Your task to perform on an android device: turn off data saver in the chrome app Image 0: 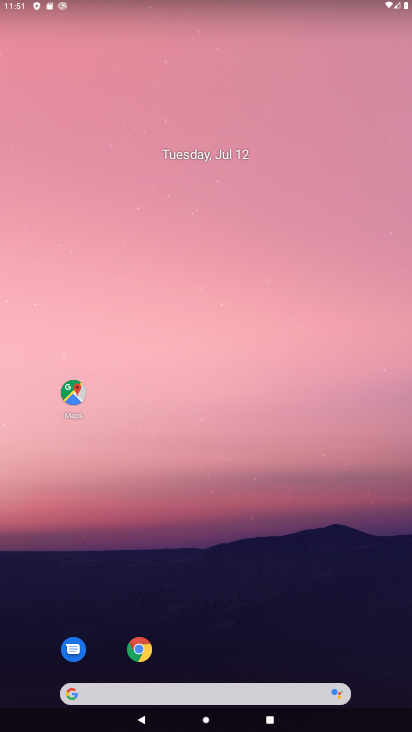
Step 0: drag from (267, 596) to (265, 251)
Your task to perform on an android device: turn off data saver in the chrome app Image 1: 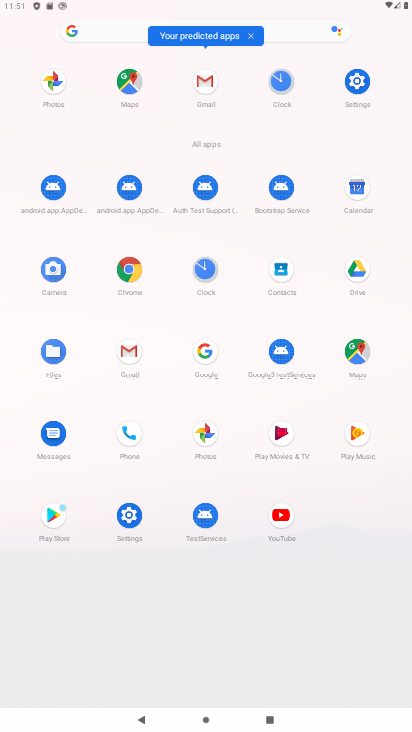
Step 1: click (132, 279)
Your task to perform on an android device: turn off data saver in the chrome app Image 2: 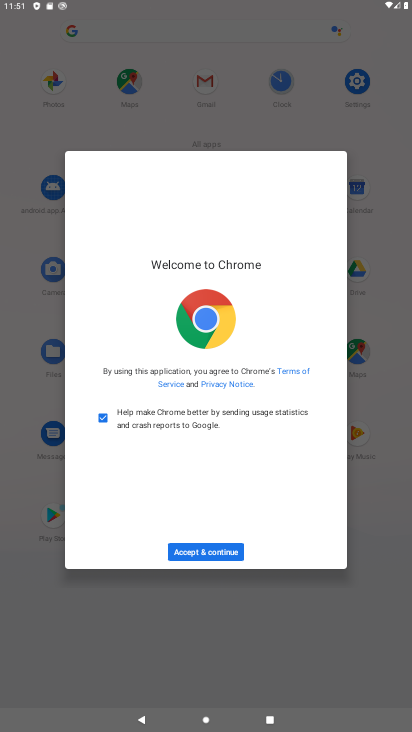
Step 2: click (224, 548)
Your task to perform on an android device: turn off data saver in the chrome app Image 3: 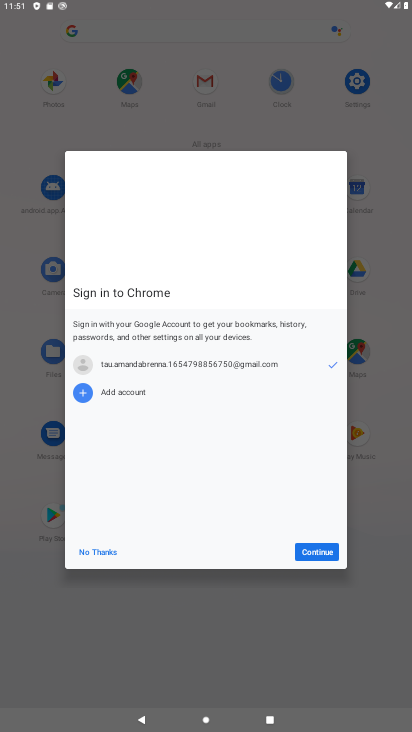
Step 3: click (336, 546)
Your task to perform on an android device: turn off data saver in the chrome app Image 4: 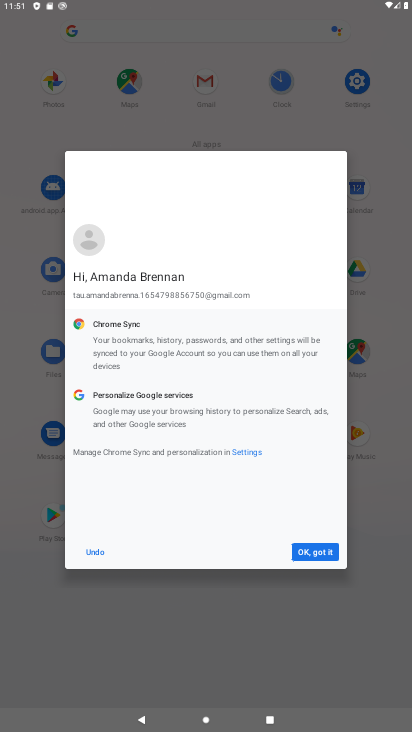
Step 4: click (329, 551)
Your task to perform on an android device: turn off data saver in the chrome app Image 5: 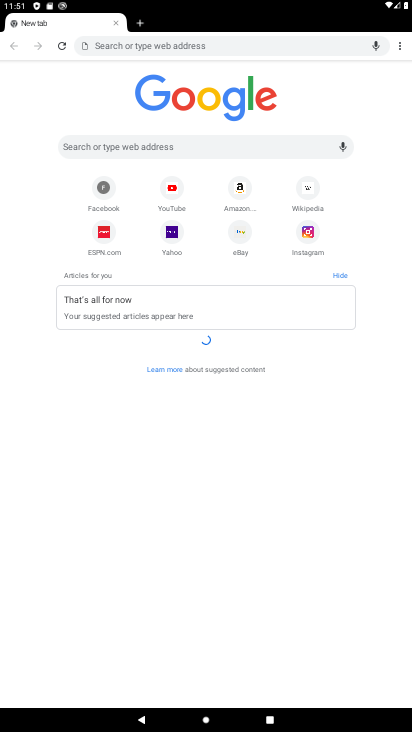
Step 5: click (404, 47)
Your task to perform on an android device: turn off data saver in the chrome app Image 6: 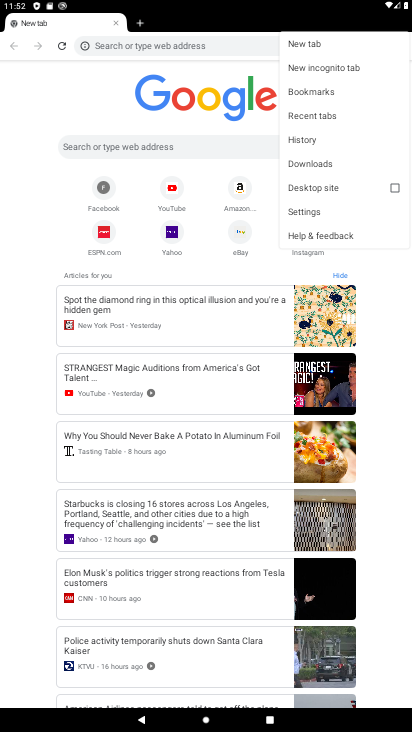
Step 6: click (313, 208)
Your task to perform on an android device: turn off data saver in the chrome app Image 7: 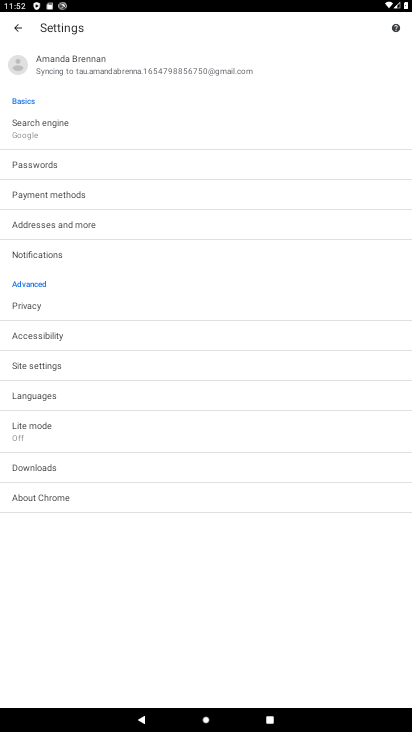
Step 7: click (65, 423)
Your task to perform on an android device: turn off data saver in the chrome app Image 8: 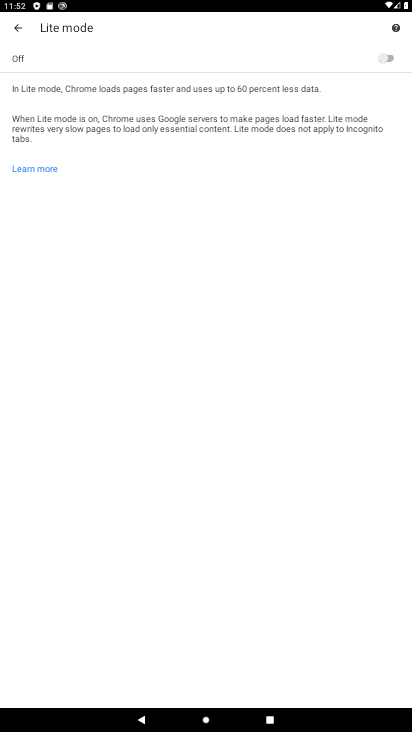
Step 8: task complete